Your task to perform on an android device: toggle priority inbox in the gmail app Image 0: 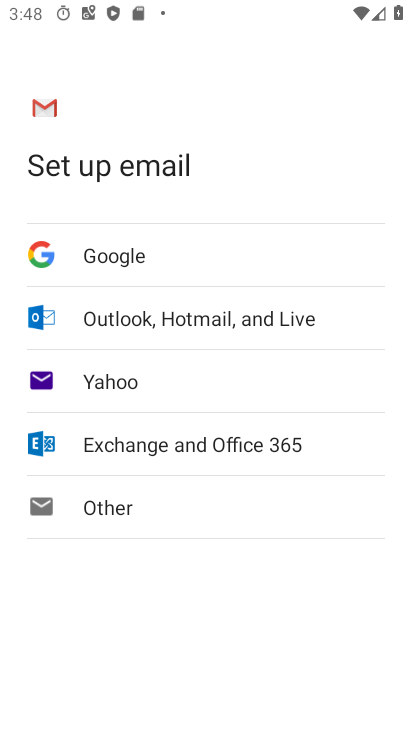
Step 0: press home button
Your task to perform on an android device: toggle priority inbox in the gmail app Image 1: 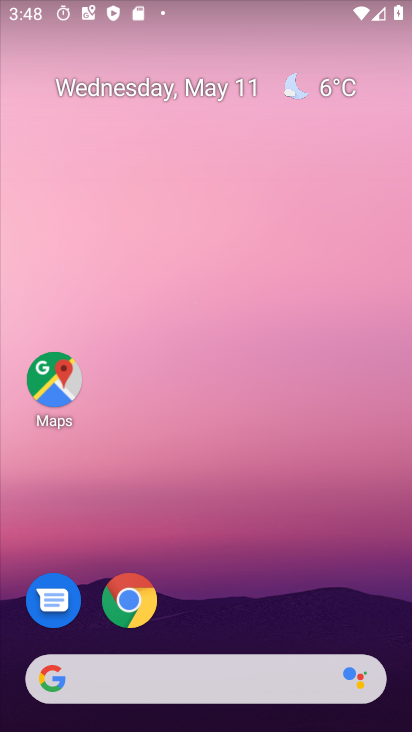
Step 1: drag from (309, 625) to (202, 228)
Your task to perform on an android device: toggle priority inbox in the gmail app Image 2: 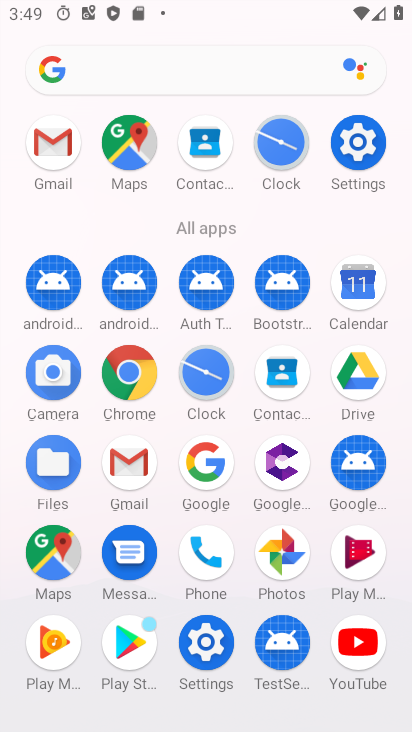
Step 2: click (123, 449)
Your task to perform on an android device: toggle priority inbox in the gmail app Image 3: 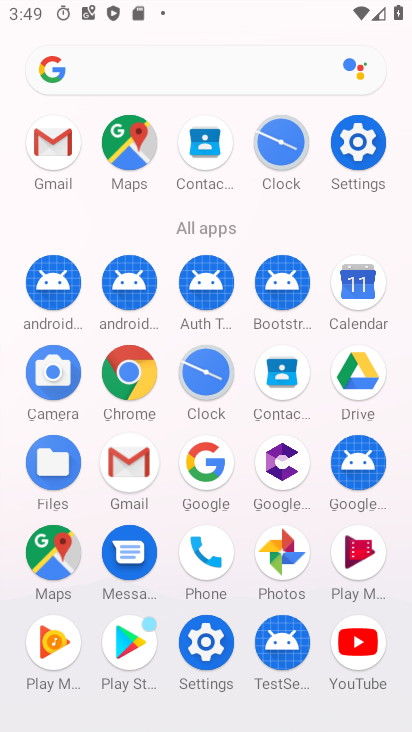
Step 3: click (122, 454)
Your task to perform on an android device: toggle priority inbox in the gmail app Image 4: 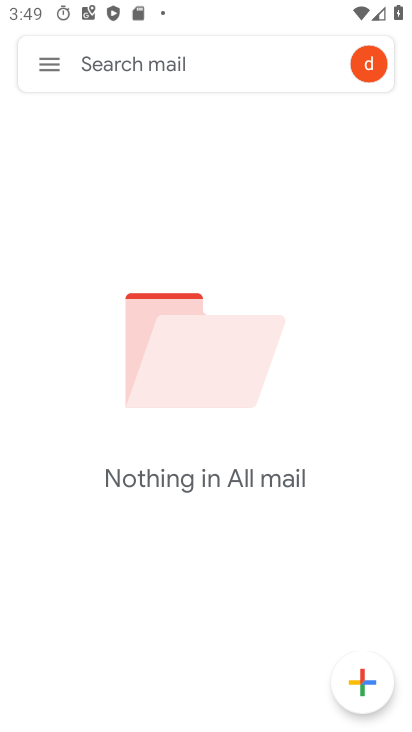
Step 4: click (53, 54)
Your task to perform on an android device: toggle priority inbox in the gmail app Image 5: 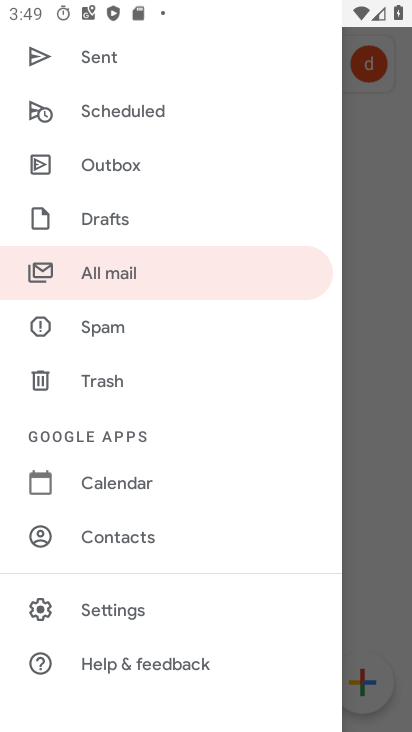
Step 5: click (107, 604)
Your task to perform on an android device: toggle priority inbox in the gmail app Image 6: 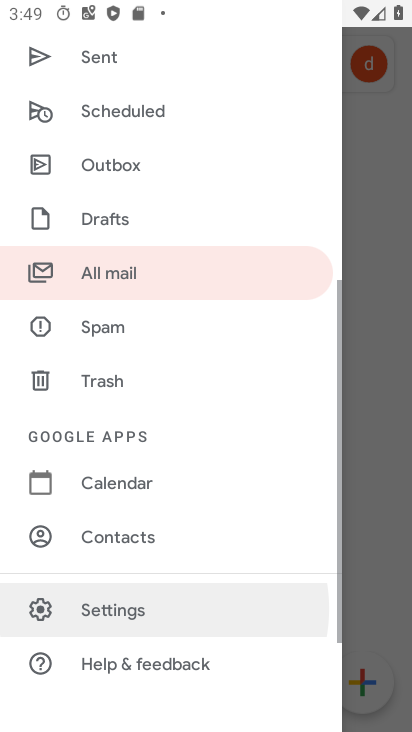
Step 6: click (114, 606)
Your task to perform on an android device: toggle priority inbox in the gmail app Image 7: 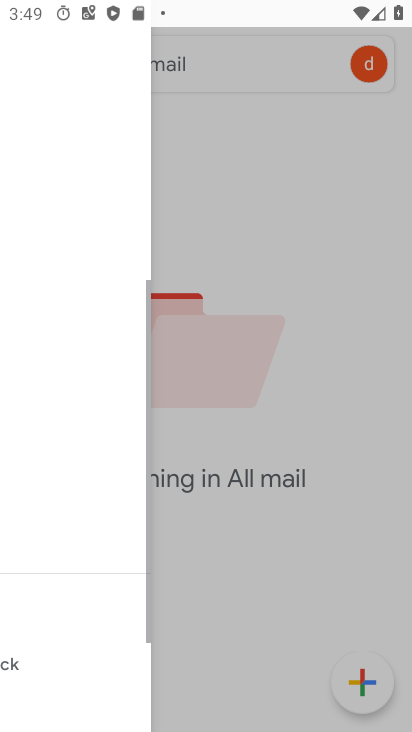
Step 7: click (114, 606)
Your task to perform on an android device: toggle priority inbox in the gmail app Image 8: 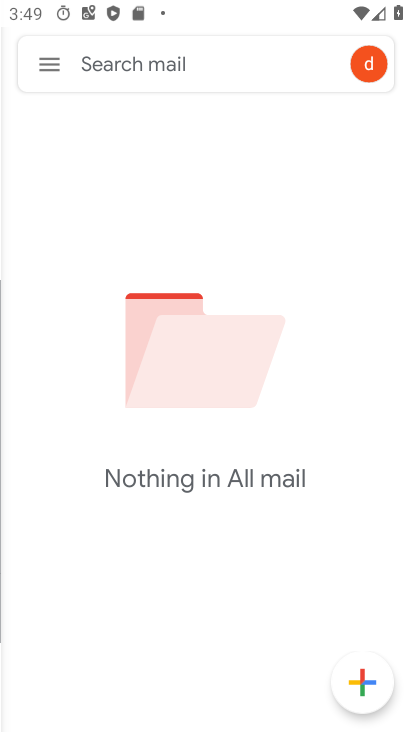
Step 8: click (115, 606)
Your task to perform on an android device: toggle priority inbox in the gmail app Image 9: 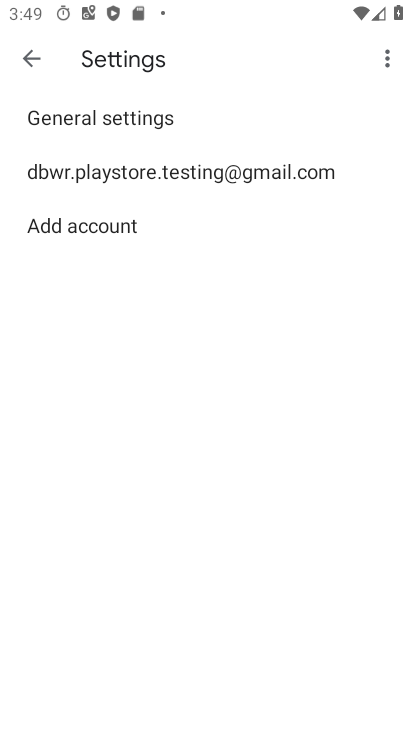
Step 9: click (106, 180)
Your task to perform on an android device: toggle priority inbox in the gmail app Image 10: 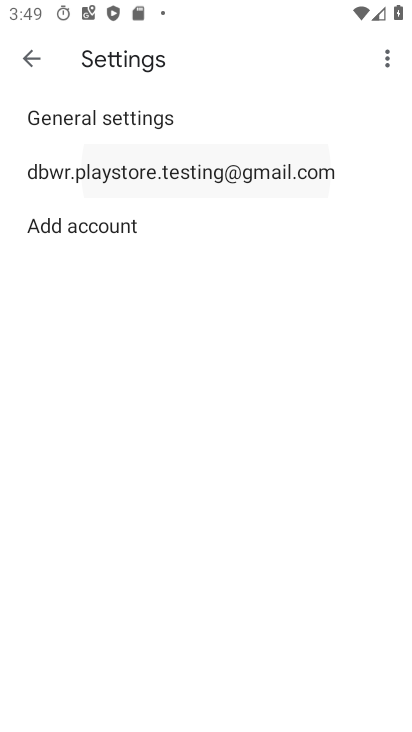
Step 10: click (110, 178)
Your task to perform on an android device: toggle priority inbox in the gmail app Image 11: 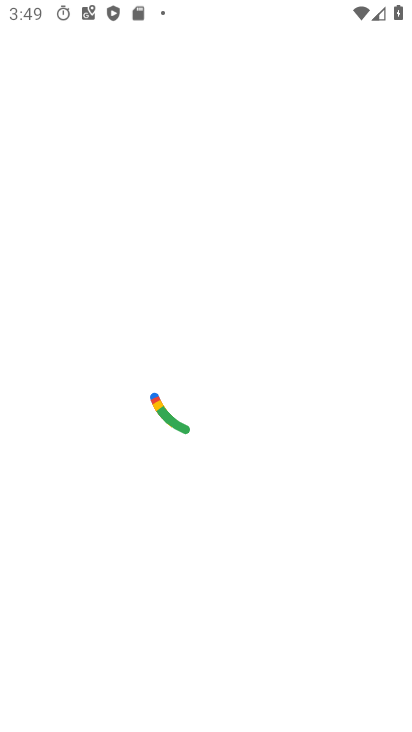
Step 11: press back button
Your task to perform on an android device: toggle priority inbox in the gmail app Image 12: 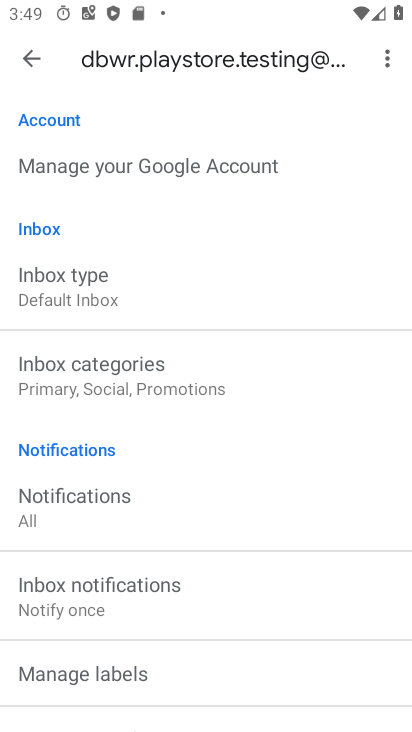
Step 12: click (64, 287)
Your task to perform on an android device: toggle priority inbox in the gmail app Image 13: 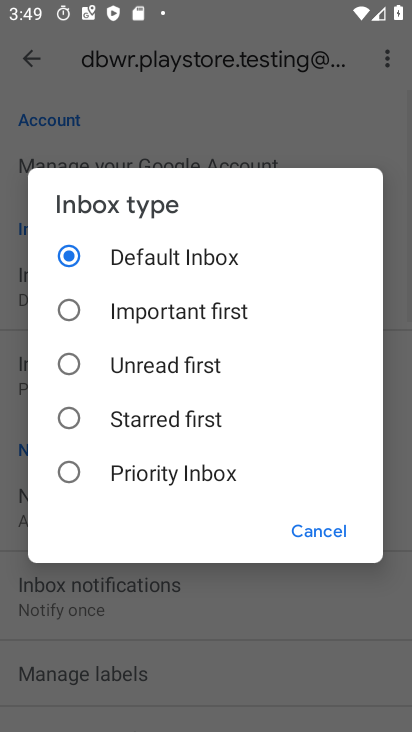
Step 13: click (67, 466)
Your task to perform on an android device: toggle priority inbox in the gmail app Image 14: 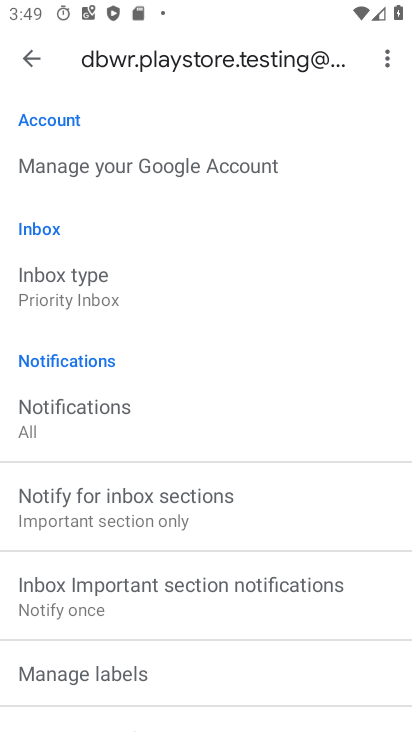
Step 14: task complete